Your task to perform on an android device: toggle show notifications on the lock screen Image 0: 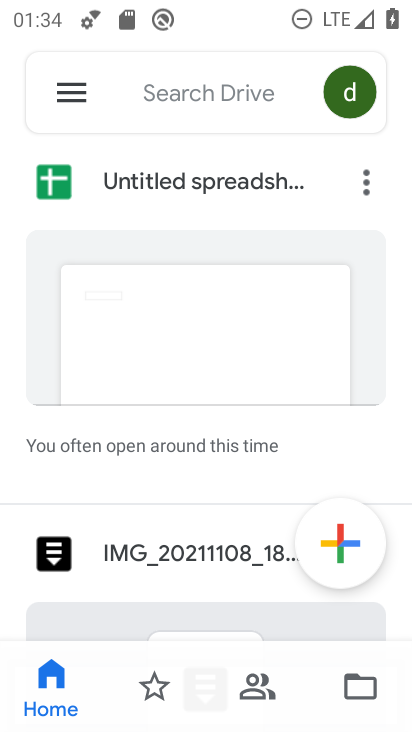
Step 0: press home button
Your task to perform on an android device: toggle show notifications on the lock screen Image 1: 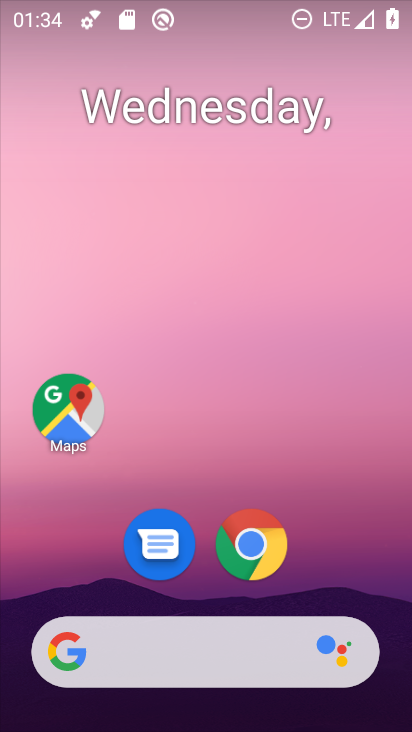
Step 1: drag from (312, 589) to (290, 58)
Your task to perform on an android device: toggle show notifications on the lock screen Image 2: 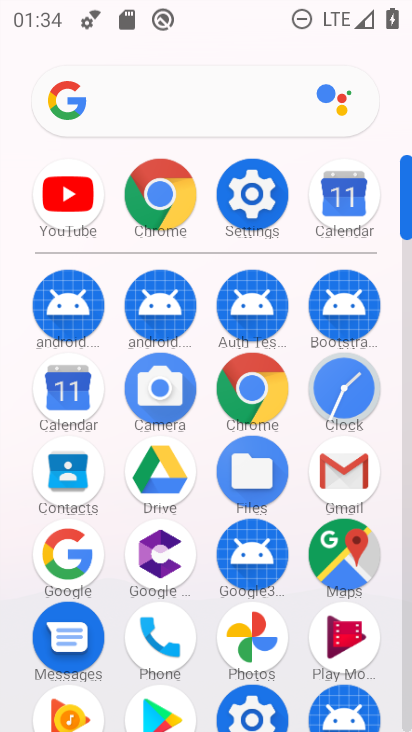
Step 2: click (256, 205)
Your task to perform on an android device: toggle show notifications on the lock screen Image 3: 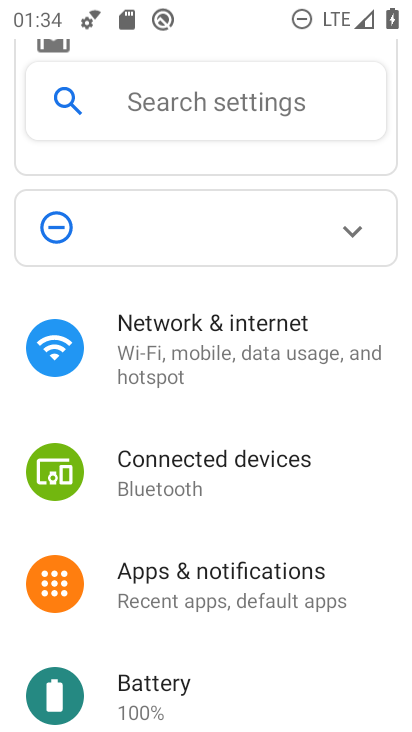
Step 3: click (240, 584)
Your task to perform on an android device: toggle show notifications on the lock screen Image 4: 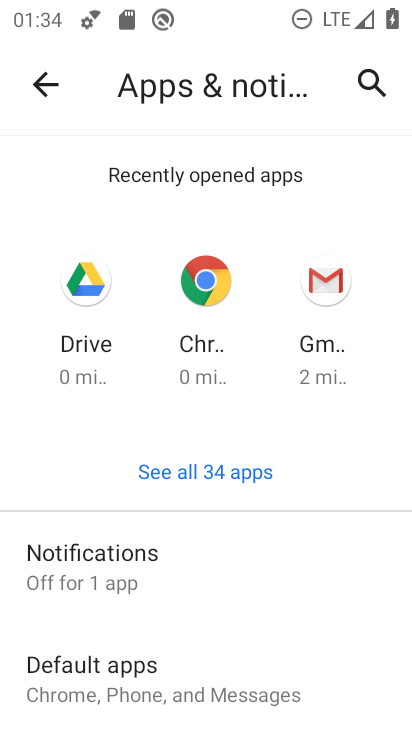
Step 4: click (109, 572)
Your task to perform on an android device: toggle show notifications on the lock screen Image 5: 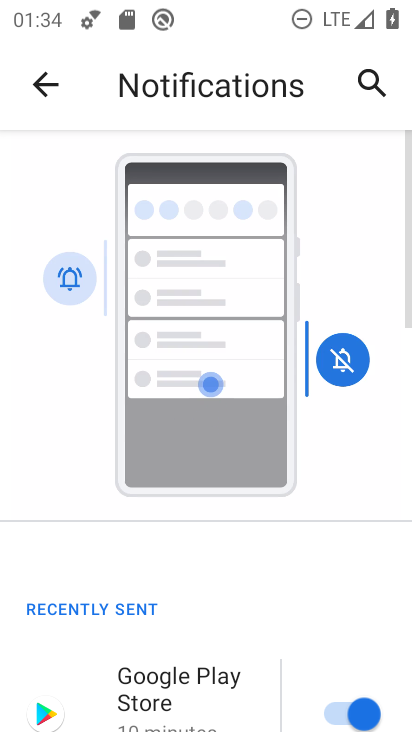
Step 5: drag from (154, 581) to (230, 184)
Your task to perform on an android device: toggle show notifications on the lock screen Image 6: 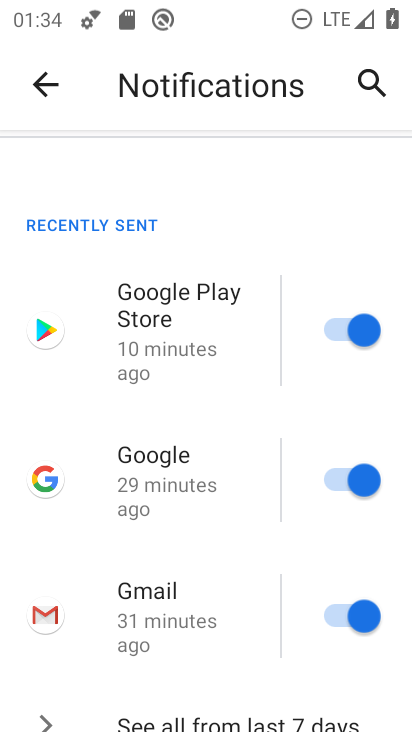
Step 6: drag from (138, 576) to (156, 283)
Your task to perform on an android device: toggle show notifications on the lock screen Image 7: 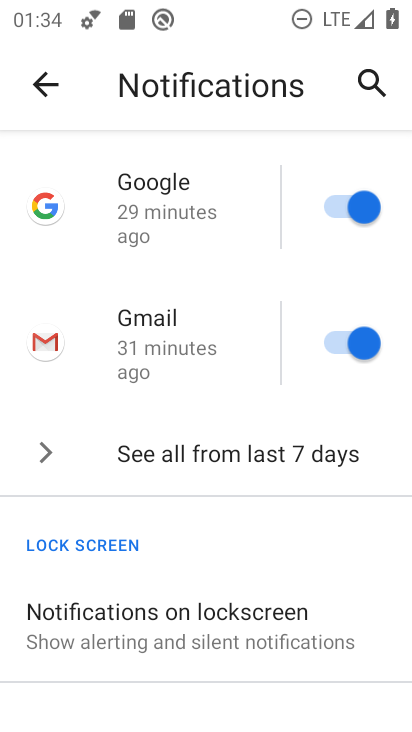
Step 7: drag from (136, 509) to (139, 237)
Your task to perform on an android device: toggle show notifications on the lock screen Image 8: 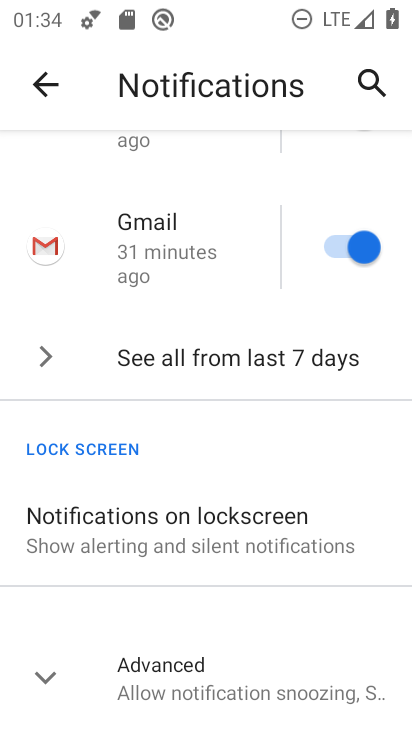
Step 8: click (180, 535)
Your task to perform on an android device: toggle show notifications on the lock screen Image 9: 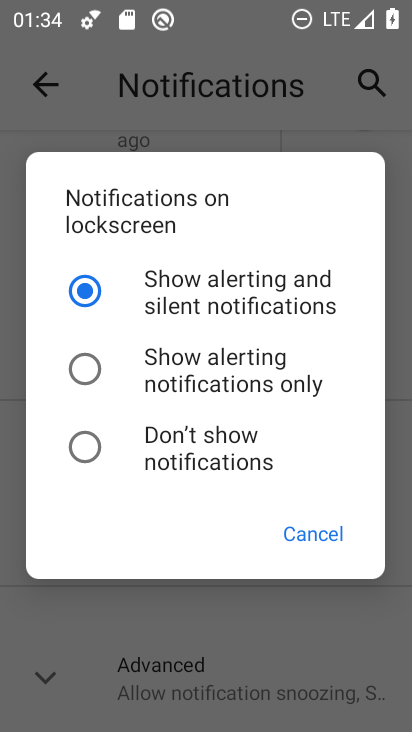
Step 9: click (159, 345)
Your task to perform on an android device: toggle show notifications on the lock screen Image 10: 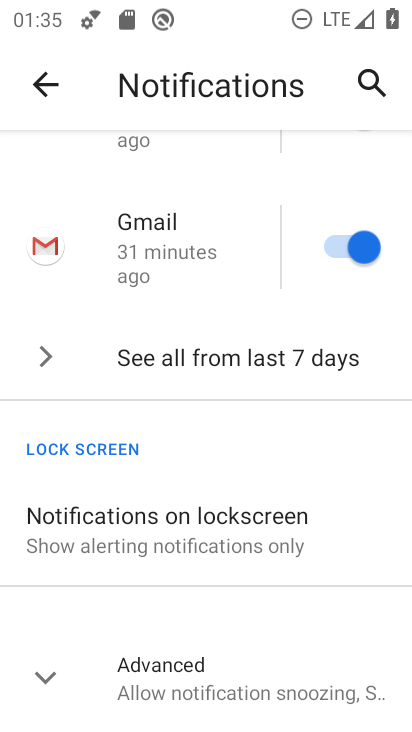
Step 10: task complete